Your task to perform on an android device: Do I have any events tomorrow? Image 0: 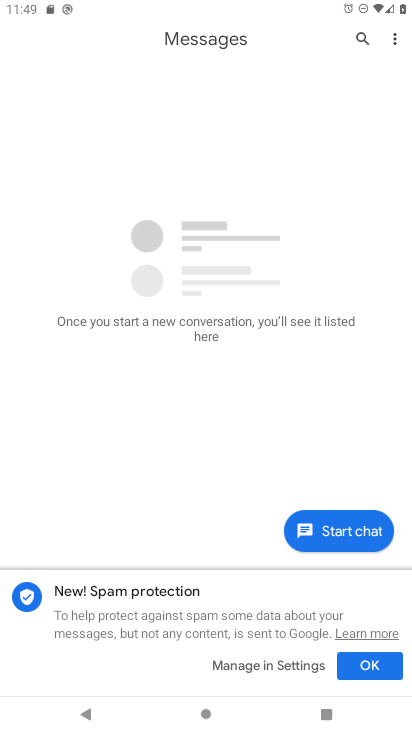
Step 0: click (360, 686)
Your task to perform on an android device: Do I have any events tomorrow? Image 1: 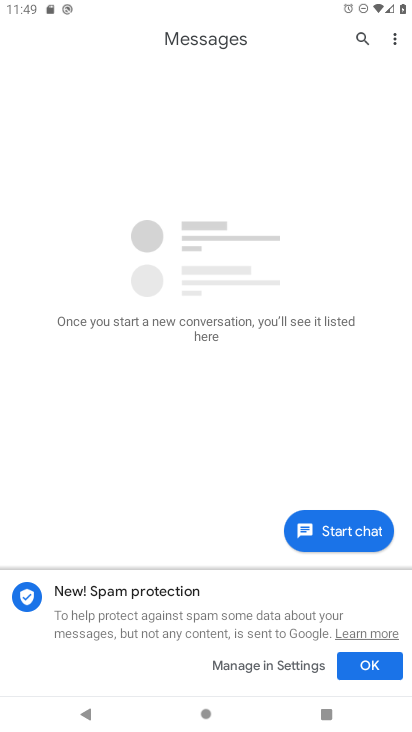
Step 1: click (369, 667)
Your task to perform on an android device: Do I have any events tomorrow? Image 2: 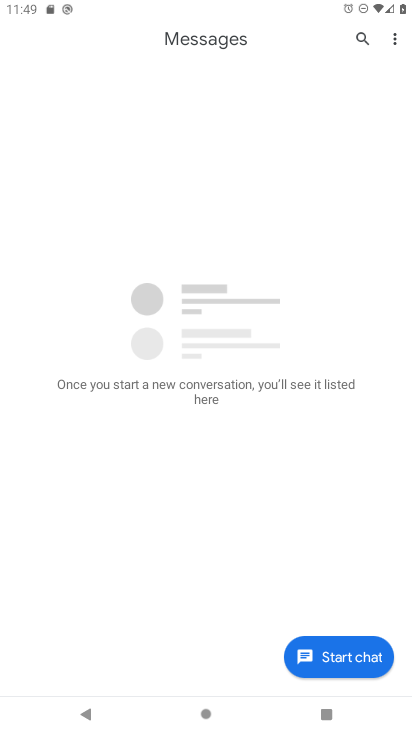
Step 2: click (364, 653)
Your task to perform on an android device: Do I have any events tomorrow? Image 3: 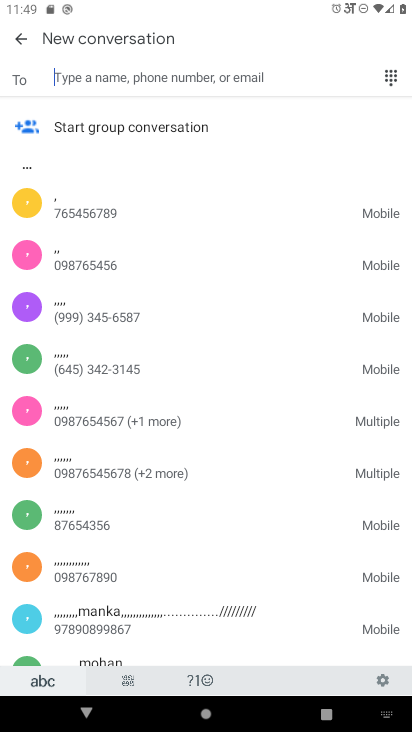
Step 3: click (22, 47)
Your task to perform on an android device: Do I have any events tomorrow? Image 4: 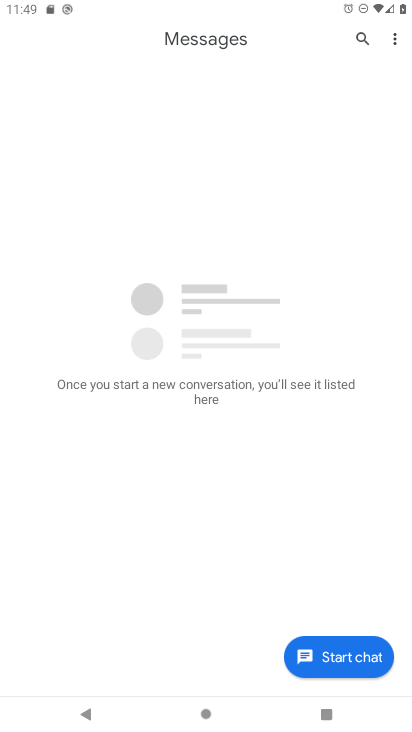
Step 4: press back button
Your task to perform on an android device: Do I have any events tomorrow? Image 5: 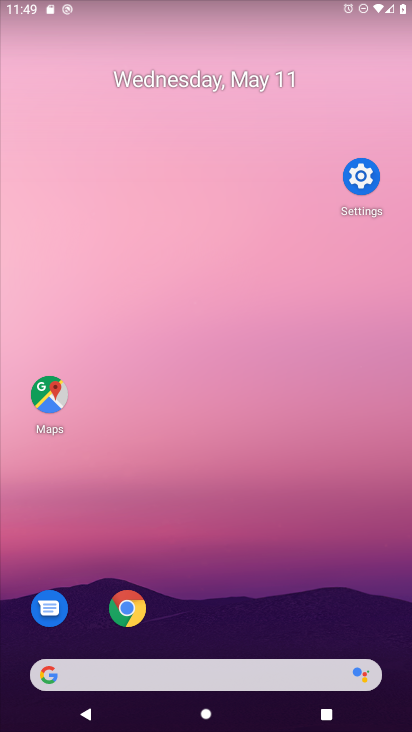
Step 5: drag from (349, 601) to (115, 48)
Your task to perform on an android device: Do I have any events tomorrow? Image 6: 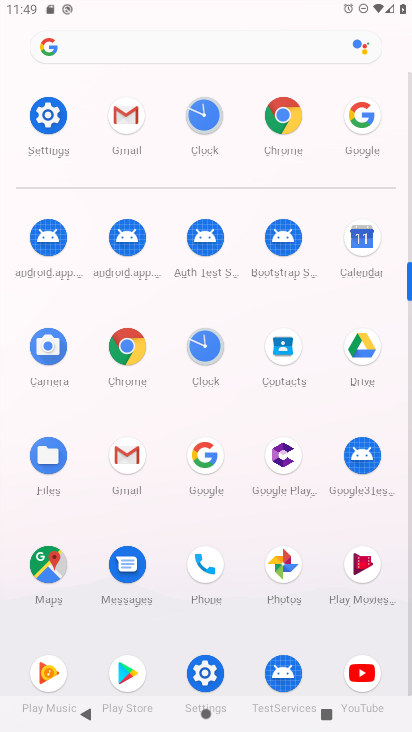
Step 6: click (358, 236)
Your task to perform on an android device: Do I have any events tomorrow? Image 7: 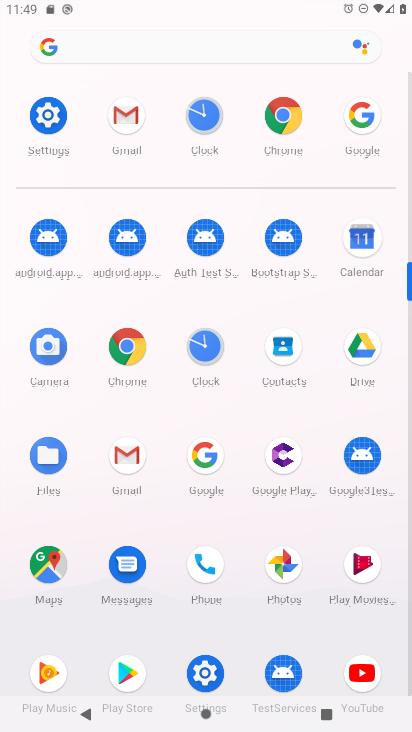
Step 7: click (358, 236)
Your task to perform on an android device: Do I have any events tomorrow? Image 8: 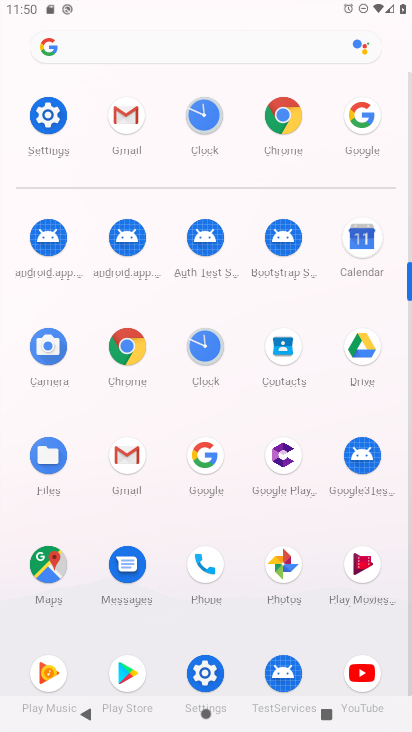
Step 8: click (358, 236)
Your task to perform on an android device: Do I have any events tomorrow? Image 9: 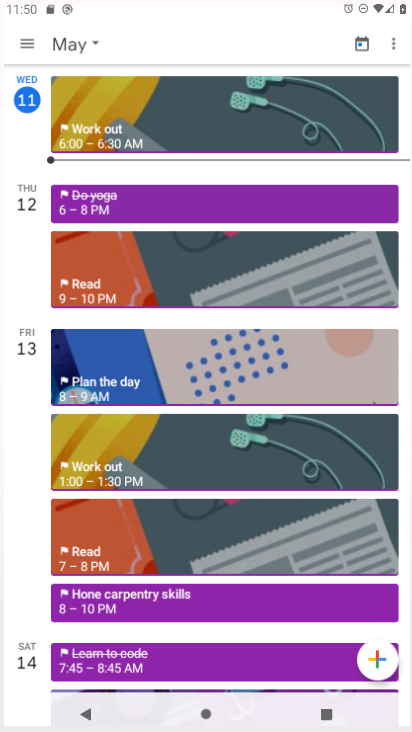
Step 9: click (358, 236)
Your task to perform on an android device: Do I have any events tomorrow? Image 10: 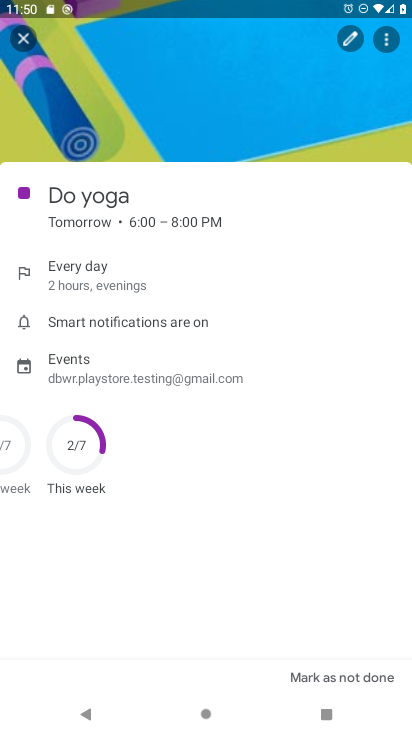
Step 10: click (23, 40)
Your task to perform on an android device: Do I have any events tomorrow? Image 11: 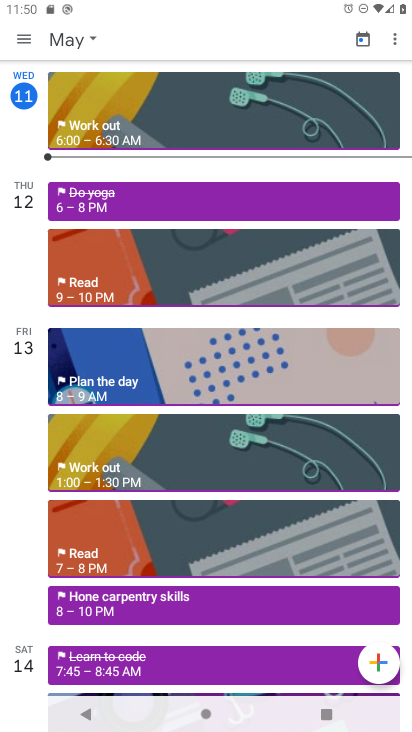
Step 11: task complete